Your task to perform on an android device: Open my contact list Image 0: 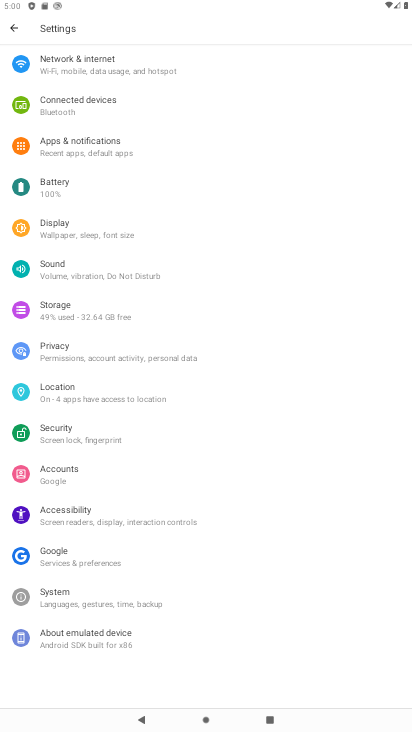
Step 0: press home button
Your task to perform on an android device: Open my contact list Image 1: 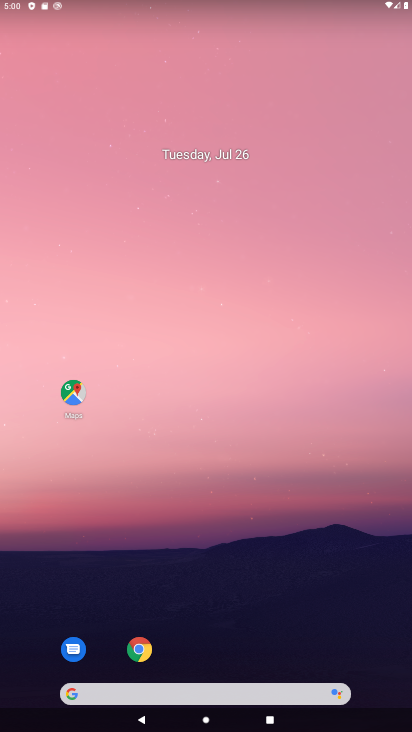
Step 1: drag from (208, 611) to (147, 211)
Your task to perform on an android device: Open my contact list Image 2: 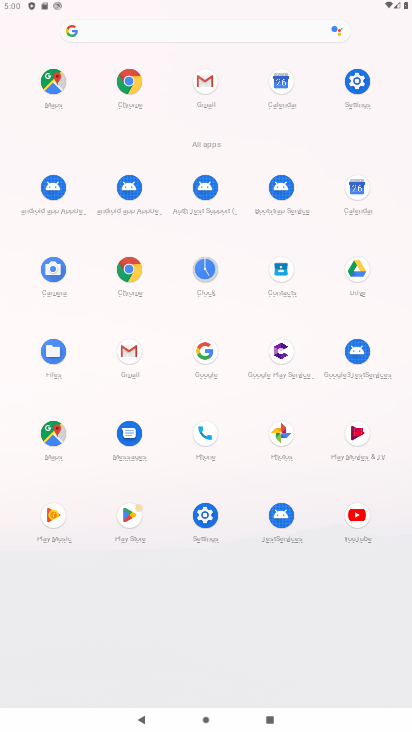
Step 2: click (278, 272)
Your task to perform on an android device: Open my contact list Image 3: 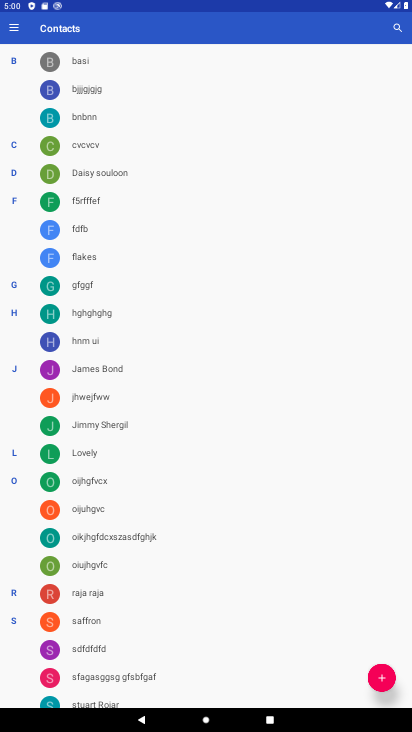
Step 3: task complete